Your task to perform on an android device: Clear the shopping cart on bestbuy. Add "usb-a to usb-b" to the cart on bestbuy, then select checkout. Image 0: 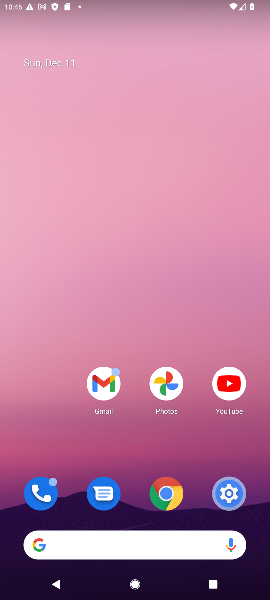
Step 0: click (82, 546)
Your task to perform on an android device: Clear the shopping cart on bestbuy. Add "usb-a to usb-b" to the cart on bestbuy, then select checkout. Image 1: 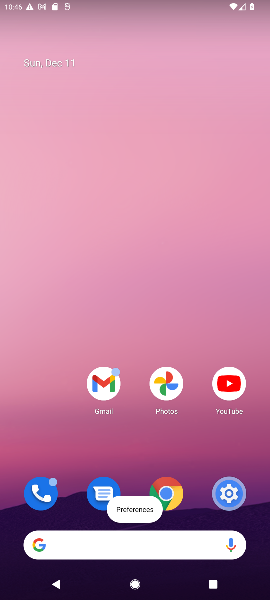
Step 1: type "bestbuy"
Your task to perform on an android device: Clear the shopping cart on bestbuy. Add "usb-a to usb-b" to the cart on bestbuy, then select checkout. Image 2: 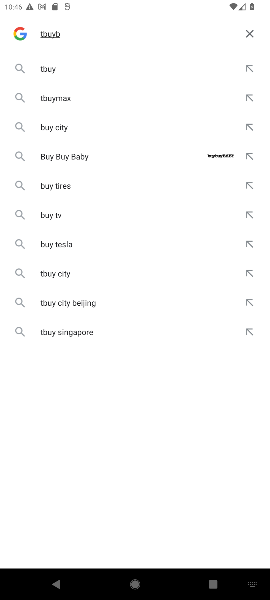
Step 2: click (260, 36)
Your task to perform on an android device: Clear the shopping cart on bestbuy. Add "usb-a to usb-b" to the cart on bestbuy, then select checkout. Image 3: 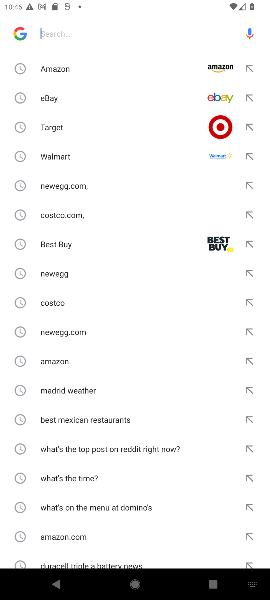
Step 3: type "bustbuy"
Your task to perform on an android device: Clear the shopping cart on bestbuy. Add "usb-a to usb-b" to the cart on bestbuy, then select checkout. Image 4: 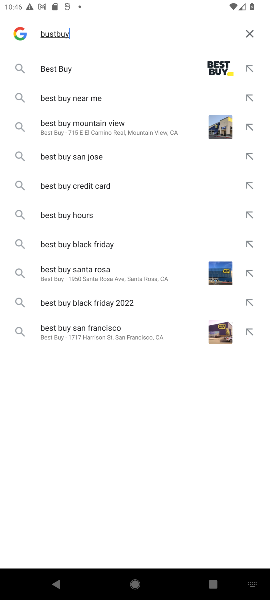
Step 4: click (91, 64)
Your task to perform on an android device: Clear the shopping cart on bestbuy. Add "usb-a to usb-b" to the cart on bestbuy, then select checkout. Image 5: 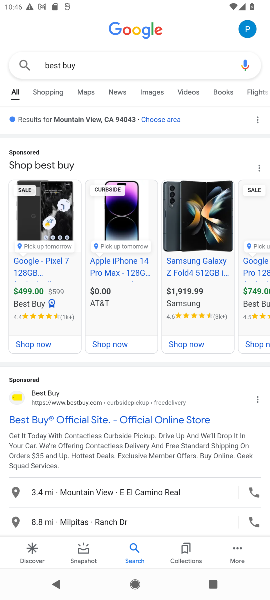
Step 5: click (151, 413)
Your task to perform on an android device: Clear the shopping cart on bestbuy. Add "usb-a to usb-b" to the cart on bestbuy, then select checkout. Image 6: 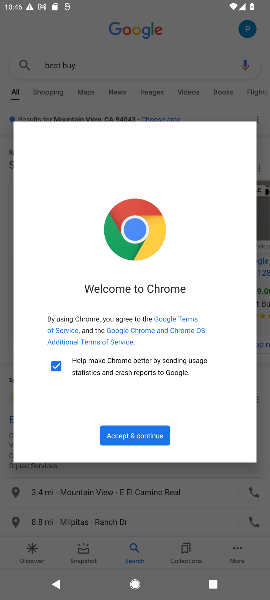
Step 6: click (144, 440)
Your task to perform on an android device: Clear the shopping cart on bestbuy. Add "usb-a to usb-b" to the cart on bestbuy, then select checkout. Image 7: 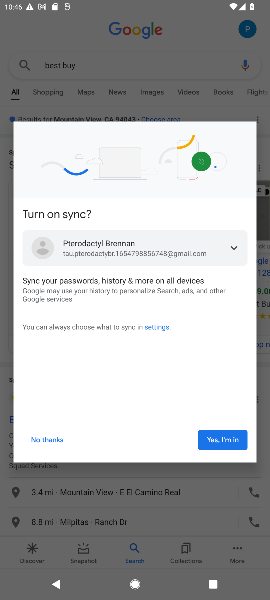
Step 7: click (221, 452)
Your task to perform on an android device: Clear the shopping cart on bestbuy. Add "usb-a to usb-b" to the cart on bestbuy, then select checkout. Image 8: 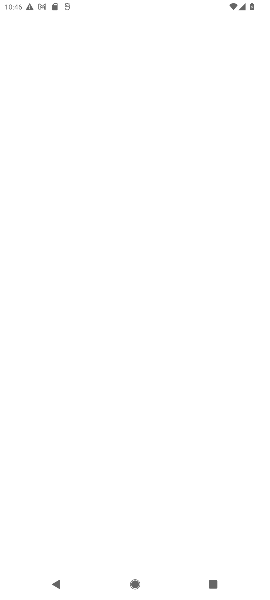
Step 8: click (224, 447)
Your task to perform on an android device: Clear the shopping cart on bestbuy. Add "usb-a to usb-b" to the cart on bestbuy, then select checkout. Image 9: 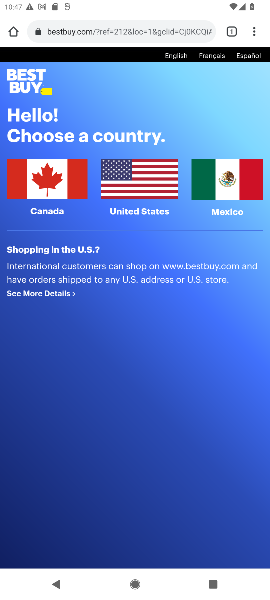
Step 9: click (22, 203)
Your task to perform on an android device: Clear the shopping cart on bestbuy. Add "usb-a to usb-b" to the cart on bestbuy, then select checkout. Image 10: 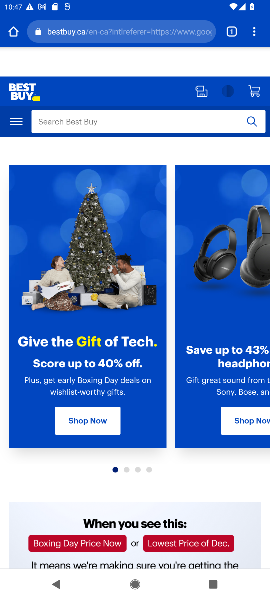
Step 10: click (98, 126)
Your task to perform on an android device: Clear the shopping cart on bestbuy. Add "usb-a to usb-b" to the cart on bestbuy, then select checkout. Image 11: 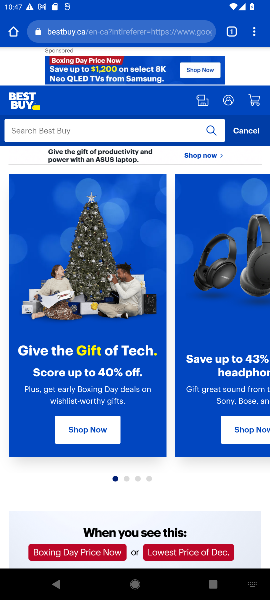
Step 11: click (108, 133)
Your task to perform on an android device: Clear the shopping cart on bestbuy. Add "usb-a to usb-b" to the cart on bestbuy, then select checkout. Image 12: 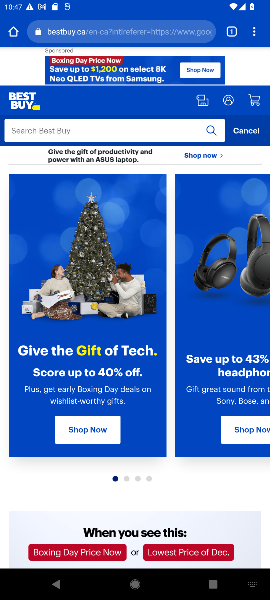
Step 12: type "usb-a to usb-b"
Your task to perform on an android device: Clear the shopping cart on bestbuy. Add "usb-a to usb-b" to the cart on bestbuy, then select checkout. Image 13: 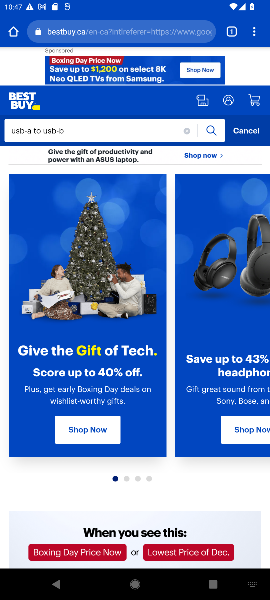
Step 13: click (216, 130)
Your task to perform on an android device: Clear the shopping cart on bestbuy. Add "usb-a to usb-b" to the cart on bestbuy, then select checkout. Image 14: 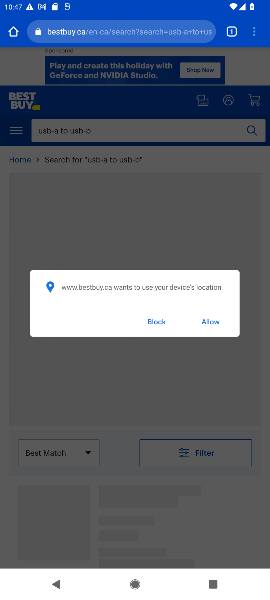
Step 14: click (207, 320)
Your task to perform on an android device: Clear the shopping cart on bestbuy. Add "usb-a to usb-b" to the cart on bestbuy, then select checkout. Image 15: 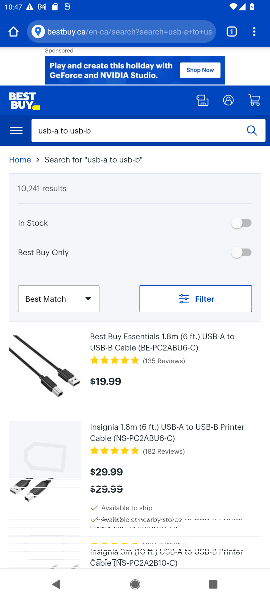
Step 15: click (142, 340)
Your task to perform on an android device: Clear the shopping cart on bestbuy. Add "usb-a to usb-b" to the cart on bestbuy, then select checkout. Image 16: 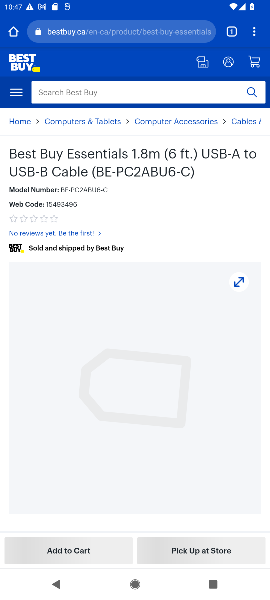
Step 16: task complete